Your task to perform on an android device: turn on bluetooth scan Image 0: 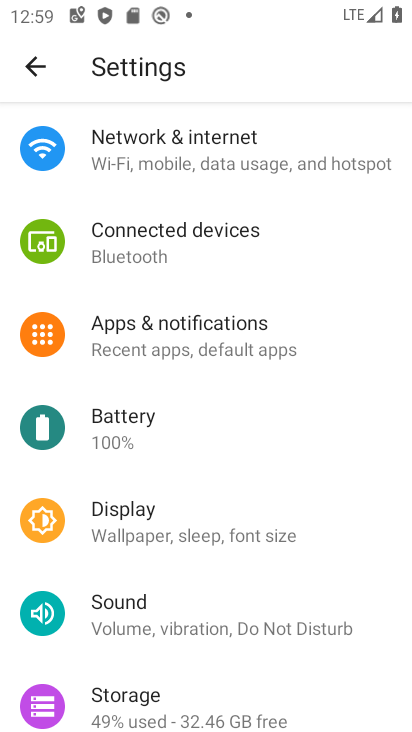
Step 0: drag from (228, 547) to (251, 310)
Your task to perform on an android device: turn on bluetooth scan Image 1: 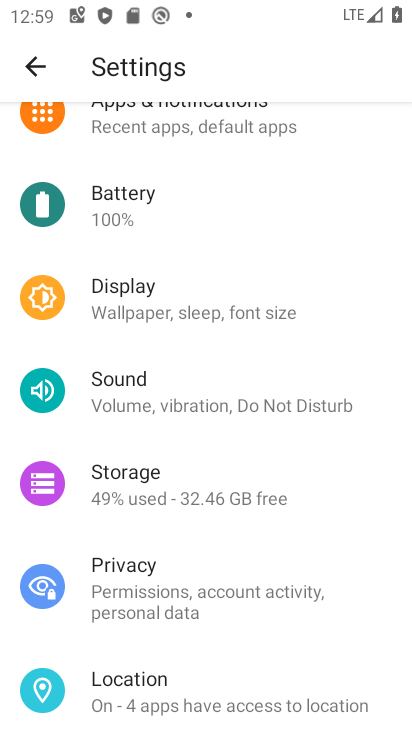
Step 1: click (210, 681)
Your task to perform on an android device: turn on bluetooth scan Image 2: 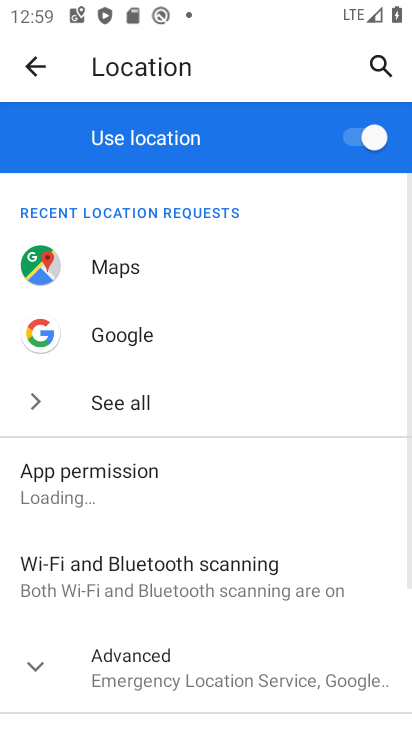
Step 2: drag from (314, 524) to (309, 264)
Your task to perform on an android device: turn on bluetooth scan Image 3: 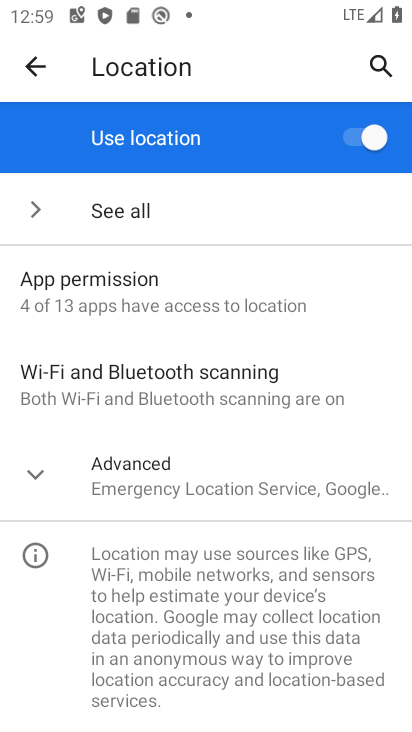
Step 3: click (275, 368)
Your task to perform on an android device: turn on bluetooth scan Image 4: 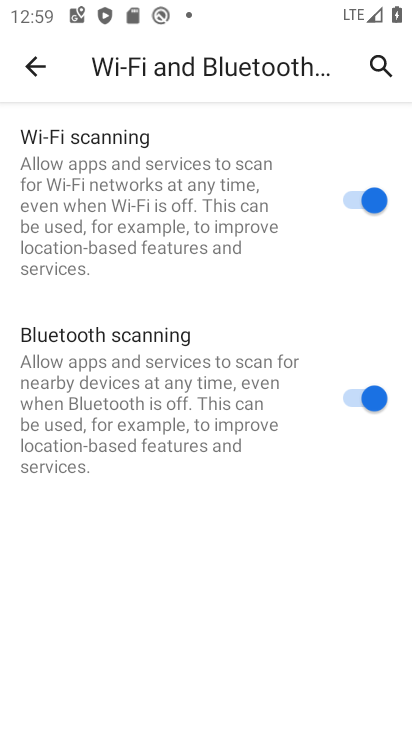
Step 4: task complete